Your task to perform on an android device: turn off notifications settings in the gmail app Image 0: 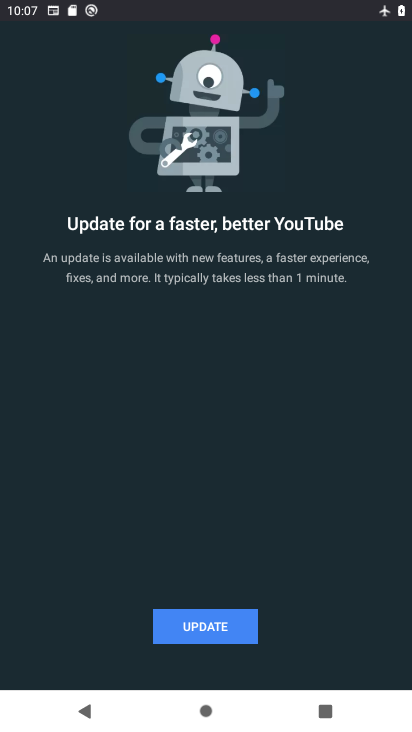
Step 0: press home button
Your task to perform on an android device: turn off notifications settings in the gmail app Image 1: 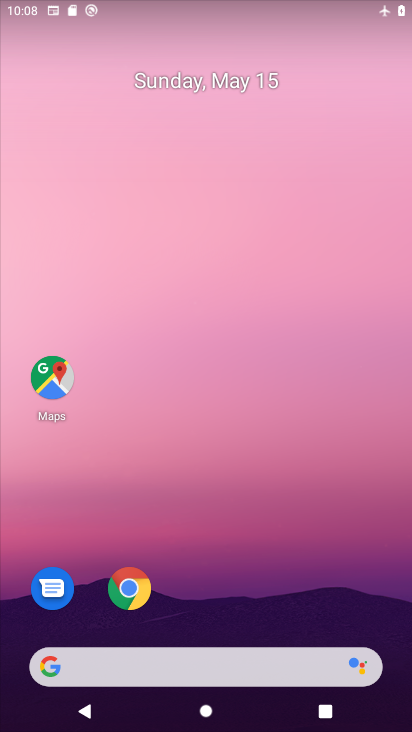
Step 1: drag from (272, 567) to (236, 115)
Your task to perform on an android device: turn off notifications settings in the gmail app Image 2: 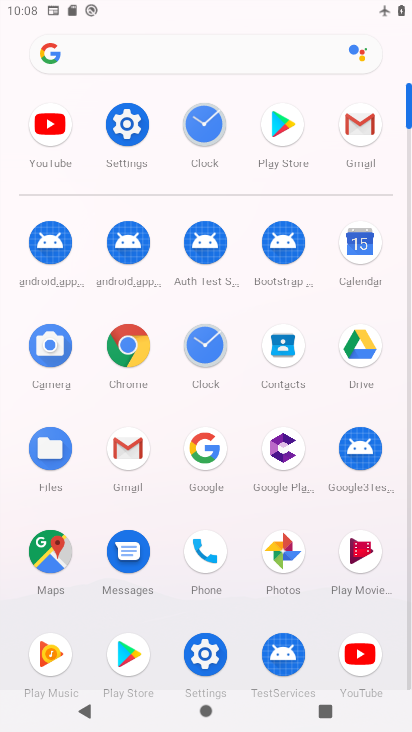
Step 2: click (127, 447)
Your task to perform on an android device: turn off notifications settings in the gmail app Image 3: 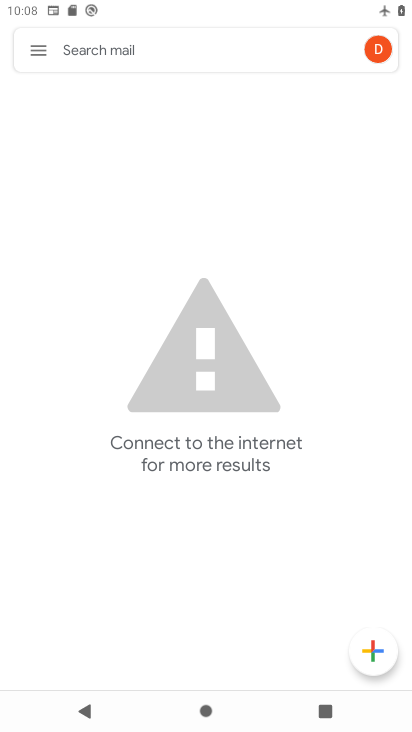
Step 3: click (35, 47)
Your task to perform on an android device: turn off notifications settings in the gmail app Image 4: 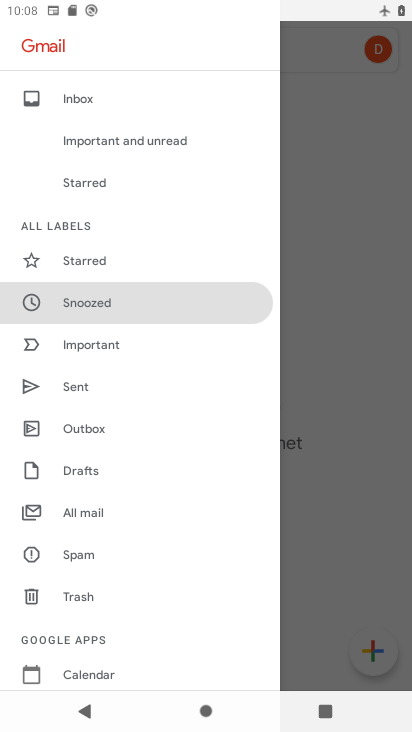
Step 4: drag from (194, 626) to (110, 298)
Your task to perform on an android device: turn off notifications settings in the gmail app Image 5: 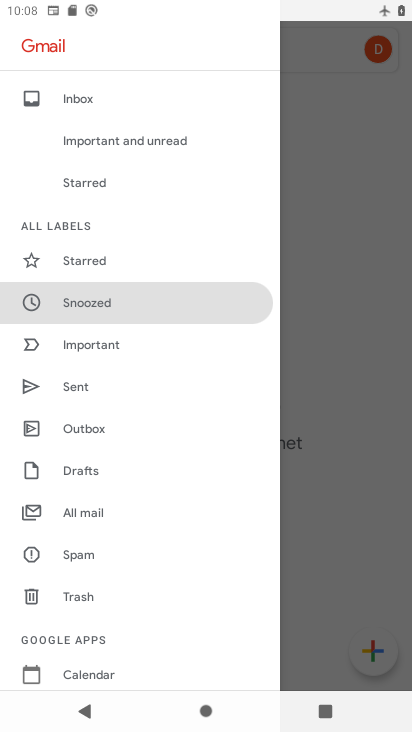
Step 5: drag from (148, 611) to (190, 293)
Your task to perform on an android device: turn off notifications settings in the gmail app Image 6: 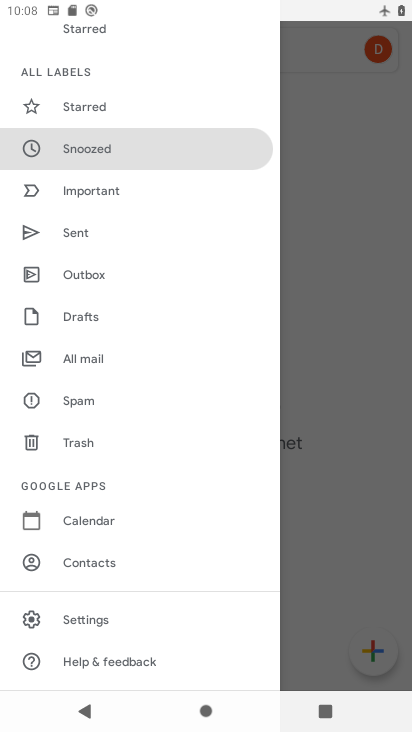
Step 6: click (89, 619)
Your task to perform on an android device: turn off notifications settings in the gmail app Image 7: 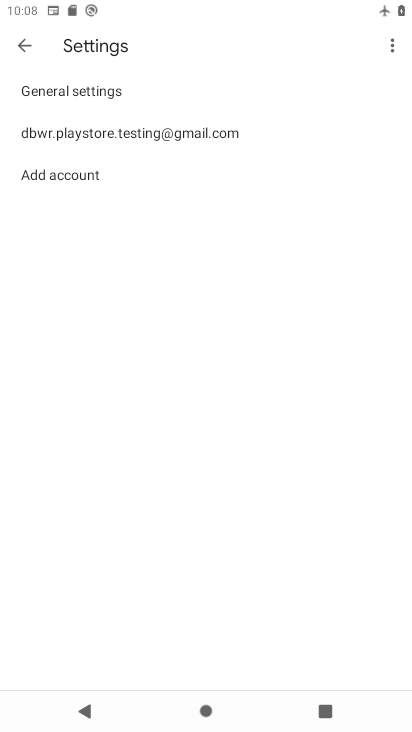
Step 7: click (75, 134)
Your task to perform on an android device: turn off notifications settings in the gmail app Image 8: 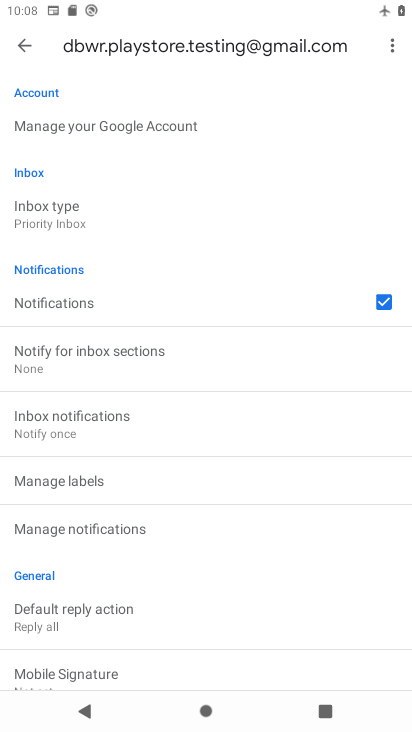
Step 8: click (133, 526)
Your task to perform on an android device: turn off notifications settings in the gmail app Image 9: 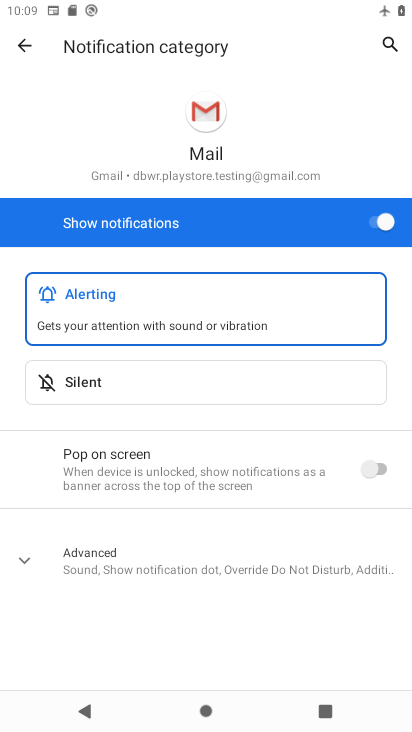
Step 9: click (378, 219)
Your task to perform on an android device: turn off notifications settings in the gmail app Image 10: 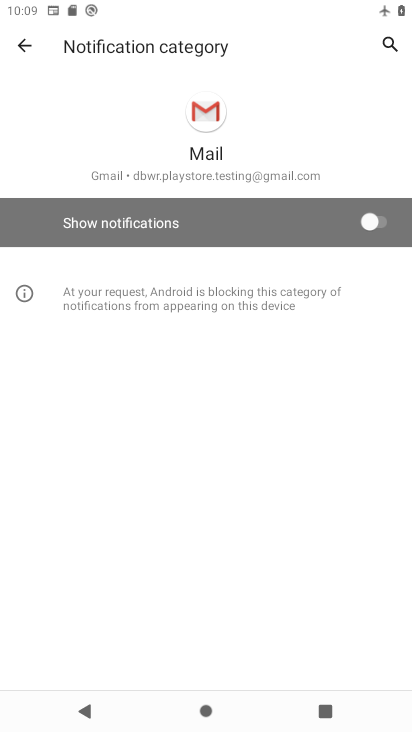
Step 10: task complete